Your task to perform on an android device: Check the news Image 0: 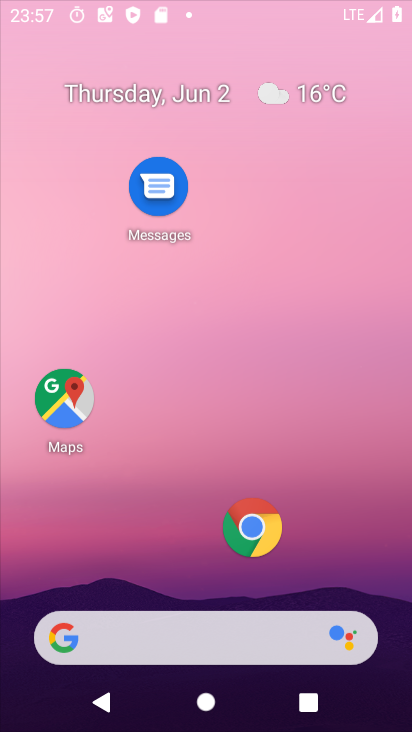
Step 0: press home button
Your task to perform on an android device: Check the news Image 1: 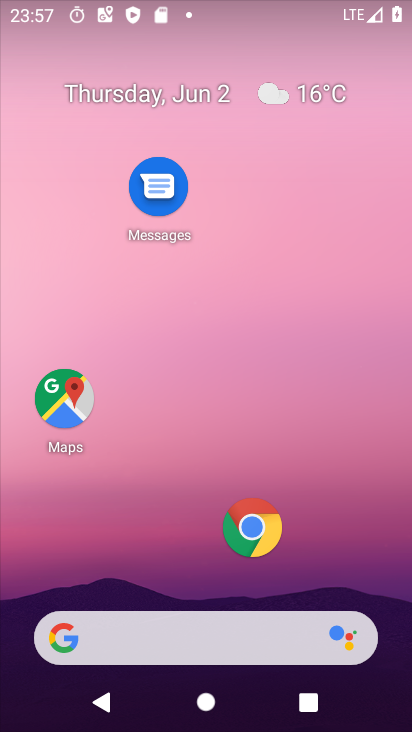
Step 1: task complete